Your task to perform on an android device: Open Wikipedia Image 0: 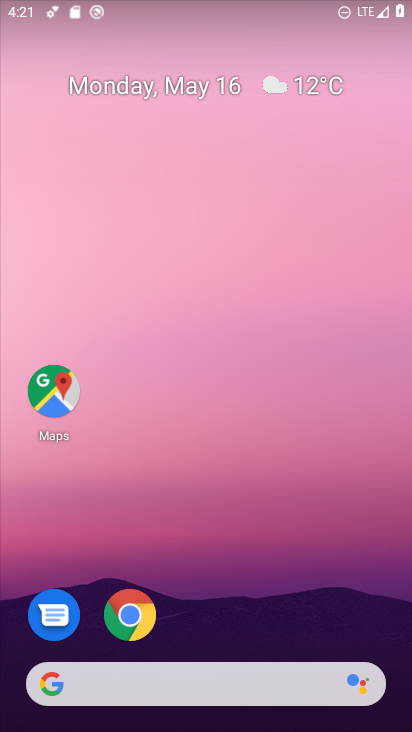
Step 0: click (132, 621)
Your task to perform on an android device: Open Wikipedia Image 1: 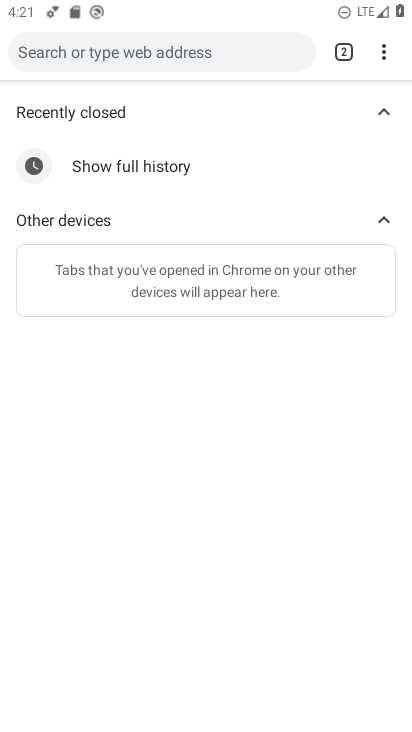
Step 1: click (385, 56)
Your task to perform on an android device: Open Wikipedia Image 2: 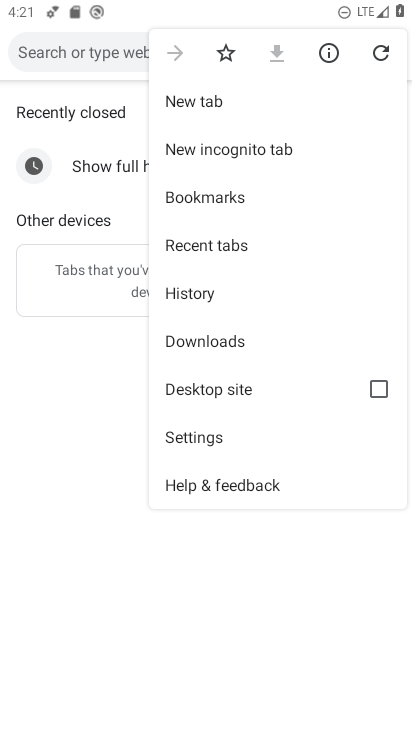
Step 2: click (188, 99)
Your task to perform on an android device: Open Wikipedia Image 3: 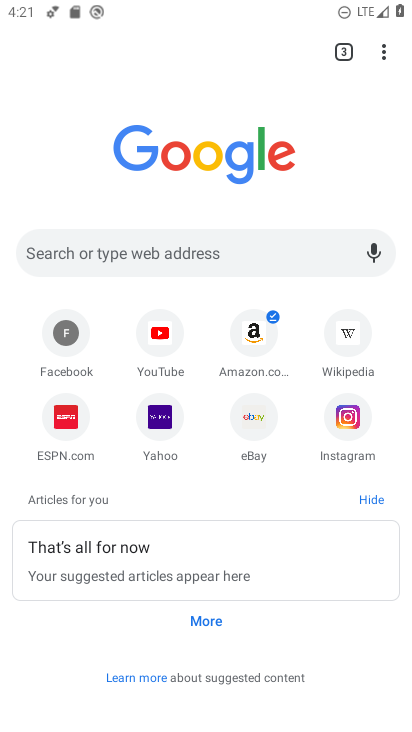
Step 3: click (347, 335)
Your task to perform on an android device: Open Wikipedia Image 4: 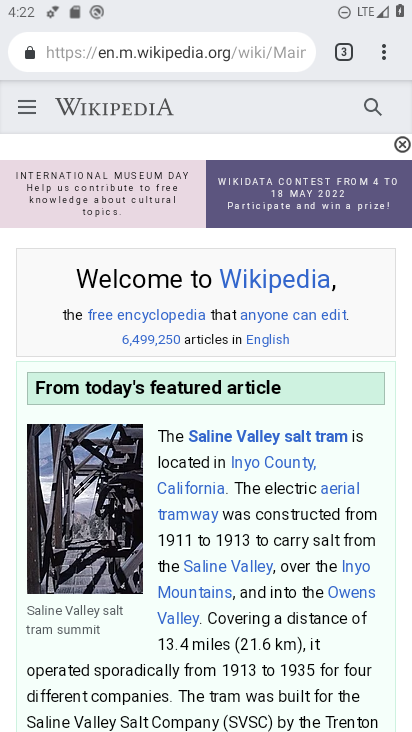
Step 4: task complete